Your task to perform on an android device: Is it going to rain today? Image 0: 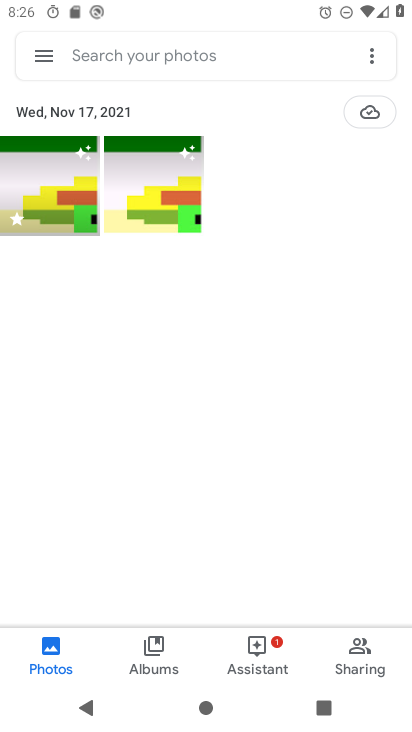
Step 0: press home button
Your task to perform on an android device: Is it going to rain today? Image 1: 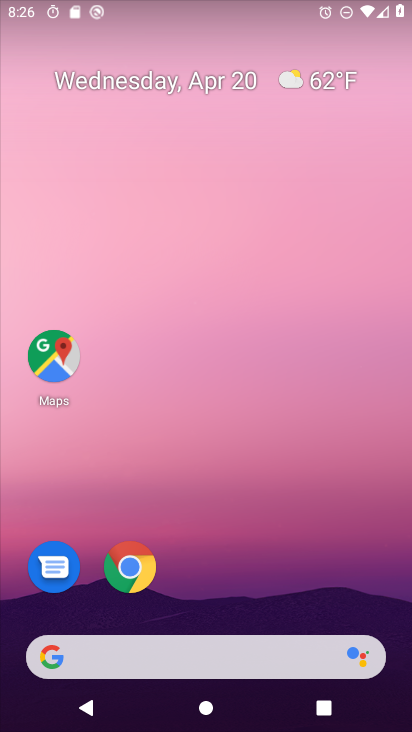
Step 1: click (317, 83)
Your task to perform on an android device: Is it going to rain today? Image 2: 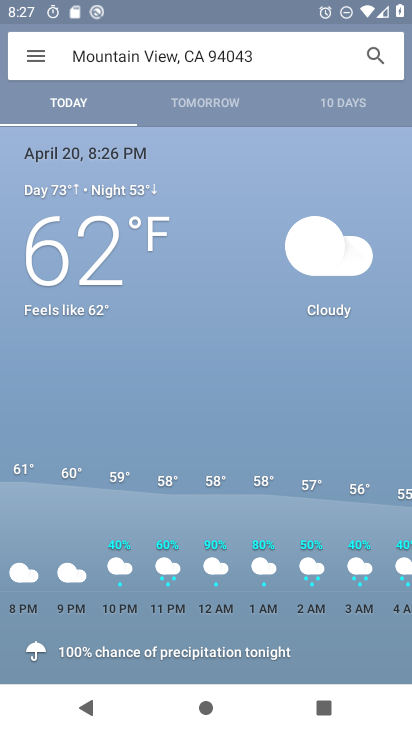
Step 2: task complete